Your task to perform on an android device: Open calendar and show me the first week of next month Image 0: 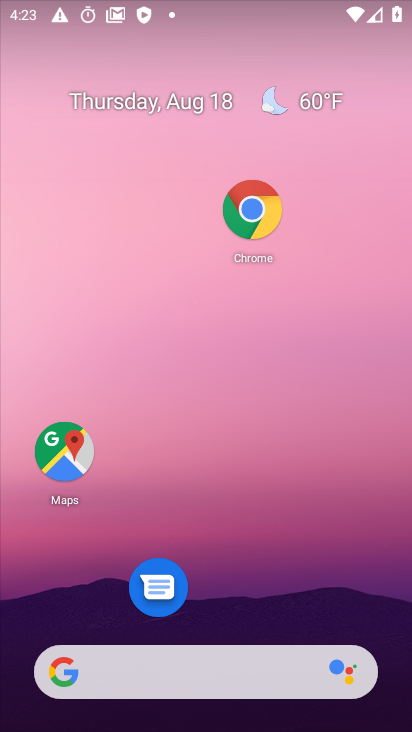
Step 0: drag from (335, 577) to (302, 50)
Your task to perform on an android device: Open calendar and show me the first week of next month Image 1: 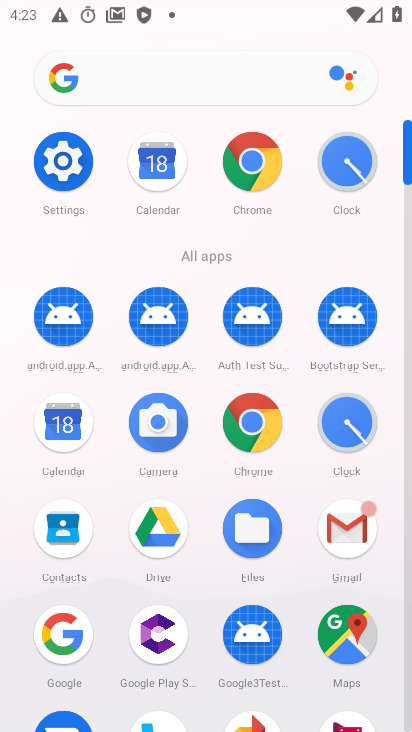
Step 1: click (163, 167)
Your task to perform on an android device: Open calendar and show me the first week of next month Image 2: 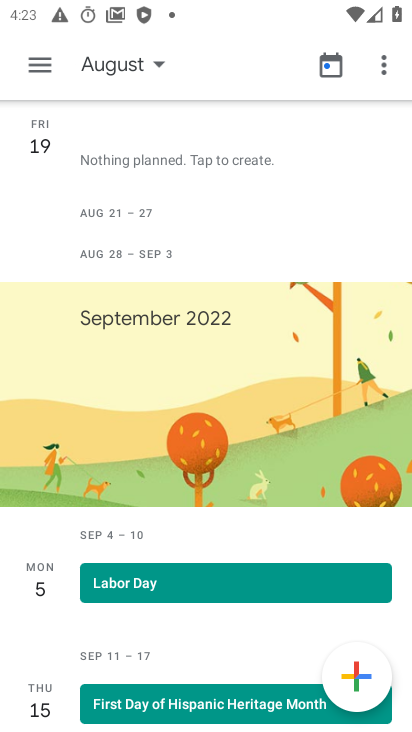
Step 2: click (166, 66)
Your task to perform on an android device: Open calendar and show me the first week of next month Image 3: 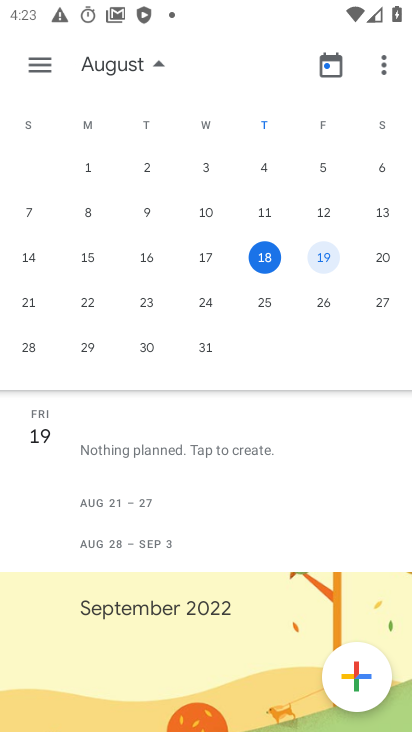
Step 3: drag from (340, 179) to (3, 169)
Your task to perform on an android device: Open calendar and show me the first week of next month Image 4: 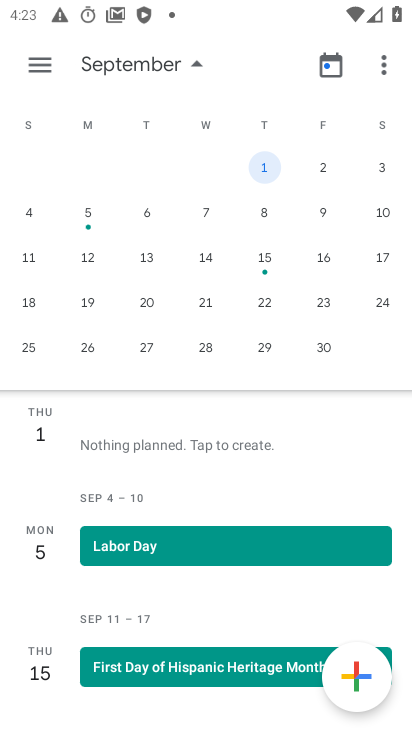
Step 4: click (73, 216)
Your task to perform on an android device: Open calendar and show me the first week of next month Image 5: 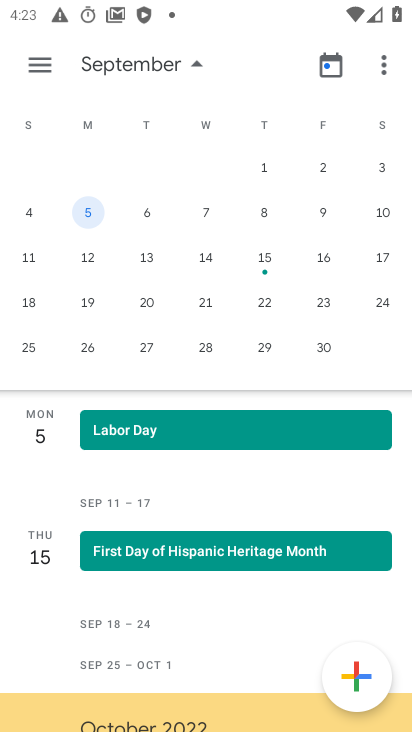
Step 5: task complete